Your task to perform on an android device: choose inbox layout in the gmail app Image 0: 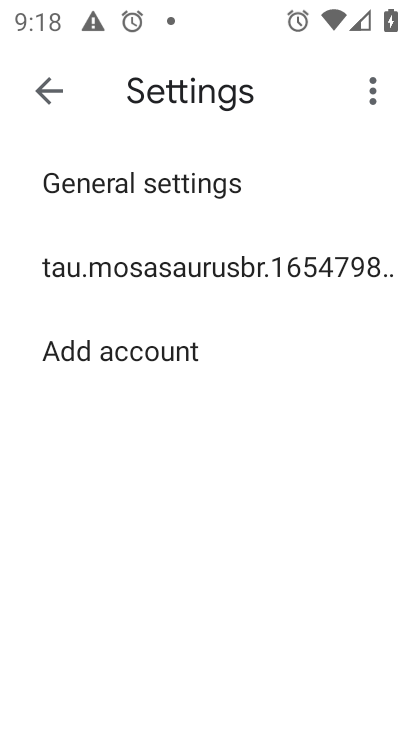
Step 0: press home button
Your task to perform on an android device: choose inbox layout in the gmail app Image 1: 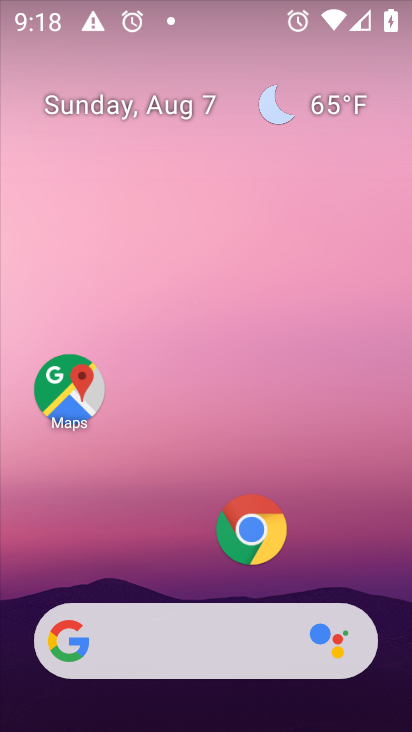
Step 1: drag from (147, 570) to (308, 0)
Your task to perform on an android device: choose inbox layout in the gmail app Image 2: 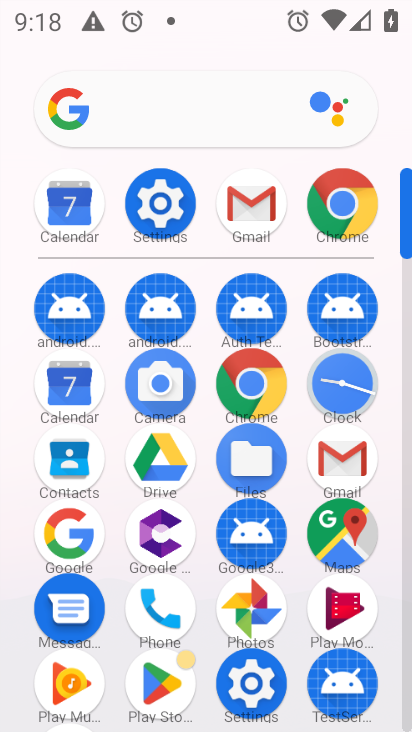
Step 2: click (340, 458)
Your task to perform on an android device: choose inbox layout in the gmail app Image 3: 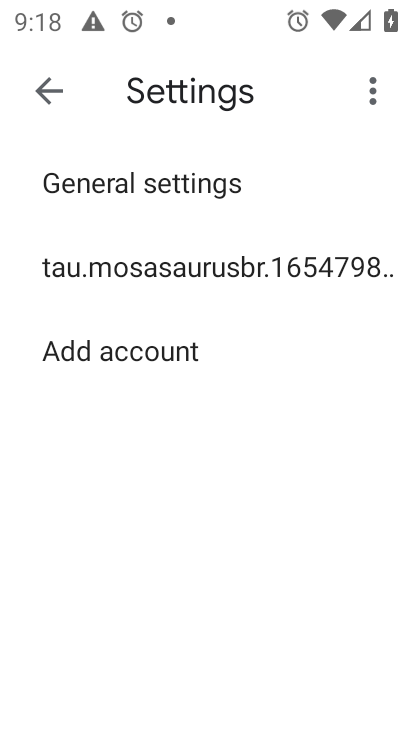
Step 3: click (187, 260)
Your task to perform on an android device: choose inbox layout in the gmail app Image 4: 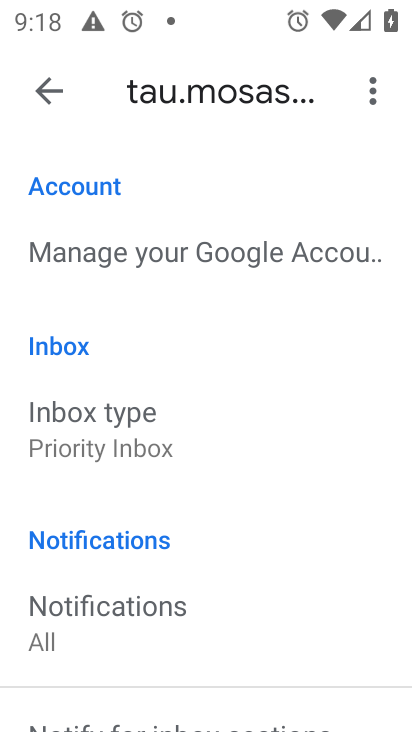
Step 4: click (135, 431)
Your task to perform on an android device: choose inbox layout in the gmail app Image 5: 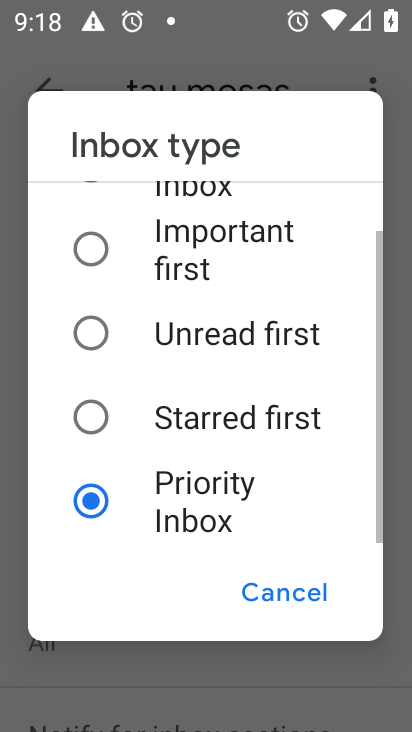
Step 5: drag from (146, 283) to (146, 434)
Your task to perform on an android device: choose inbox layout in the gmail app Image 6: 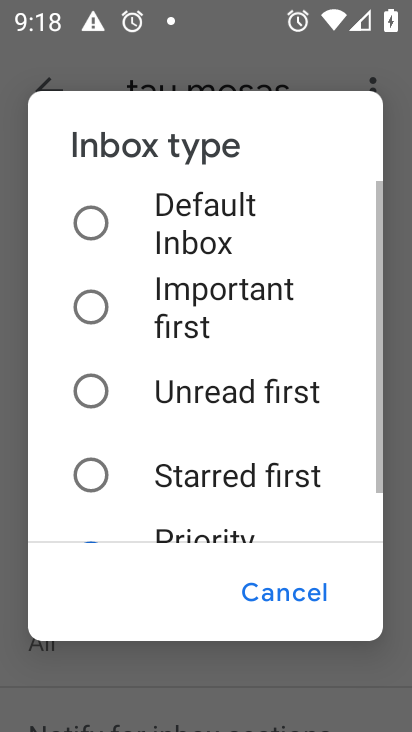
Step 6: click (84, 222)
Your task to perform on an android device: choose inbox layout in the gmail app Image 7: 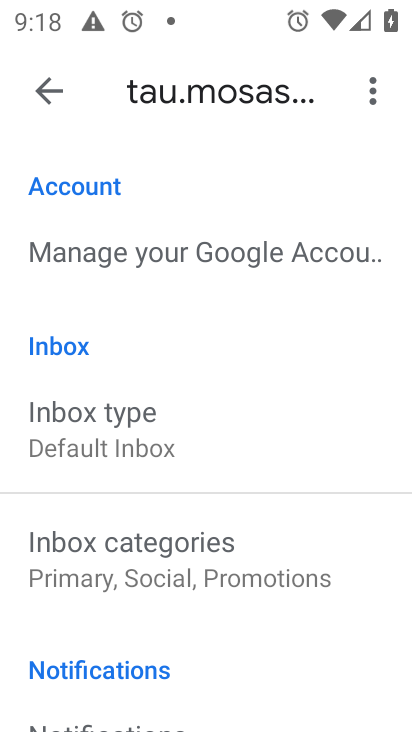
Step 7: task complete